Your task to perform on an android device: Is it going to rain this weekend? Image 0: 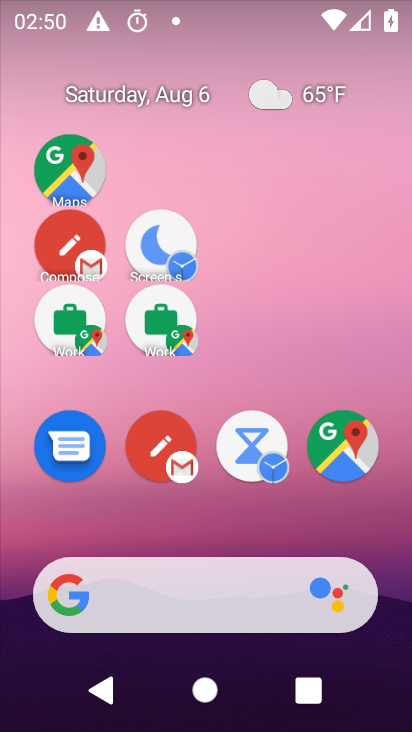
Step 0: drag from (256, 621) to (219, 294)
Your task to perform on an android device: Is it going to rain this weekend? Image 1: 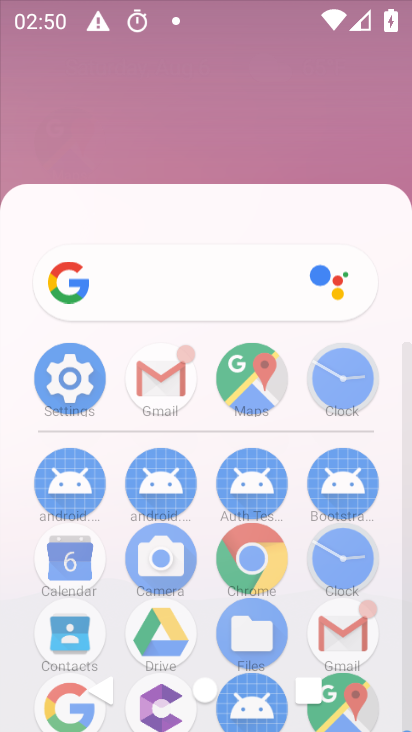
Step 1: drag from (221, 229) to (271, 288)
Your task to perform on an android device: Is it going to rain this weekend? Image 2: 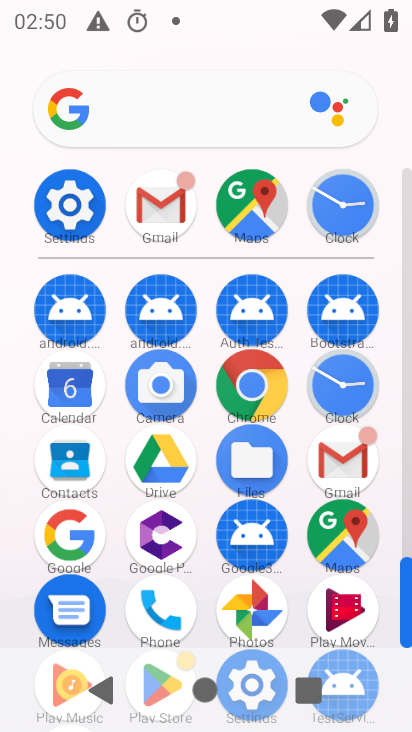
Step 2: click (267, 379)
Your task to perform on an android device: Is it going to rain this weekend? Image 3: 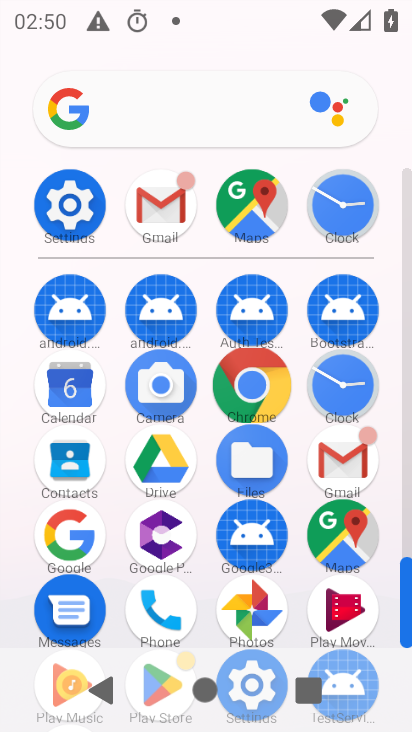
Step 3: click (260, 386)
Your task to perform on an android device: Is it going to rain this weekend? Image 4: 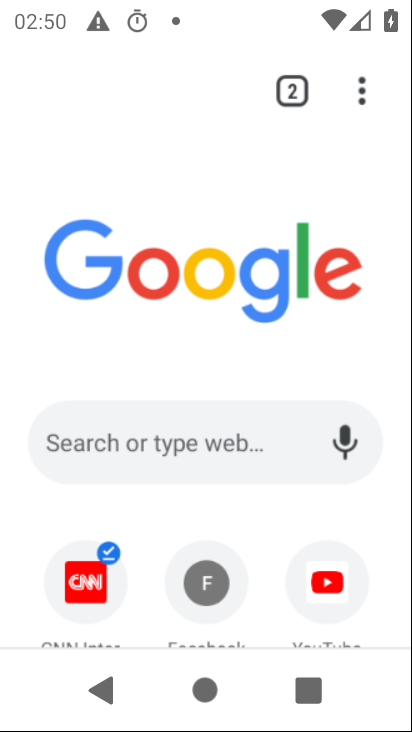
Step 4: click (260, 386)
Your task to perform on an android device: Is it going to rain this weekend? Image 5: 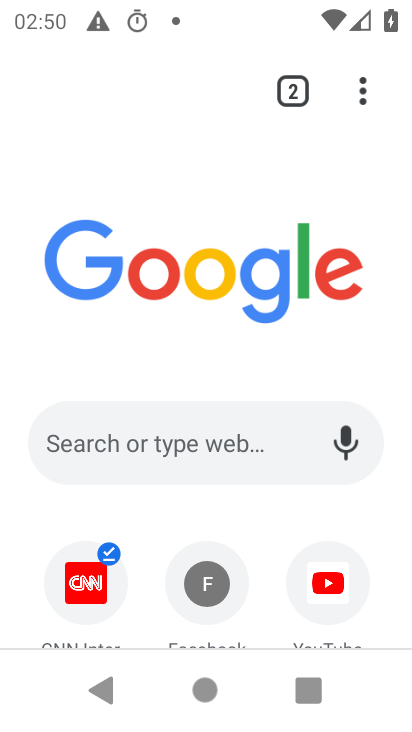
Step 5: click (78, 440)
Your task to perform on an android device: Is it going to rain this weekend? Image 6: 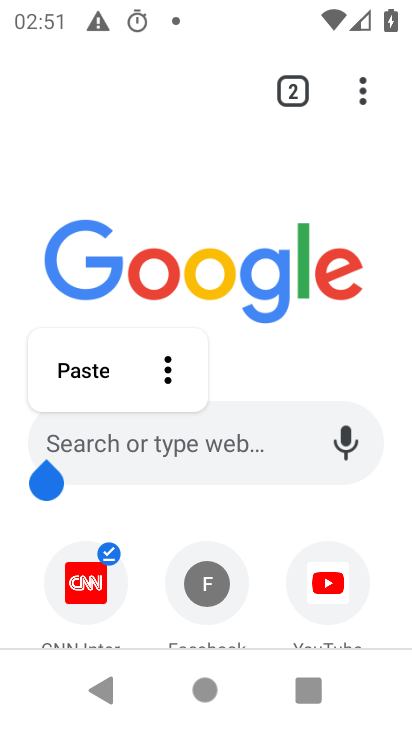
Step 6: type "is"
Your task to perform on an android device: Is it going to rain this weekend? Image 7: 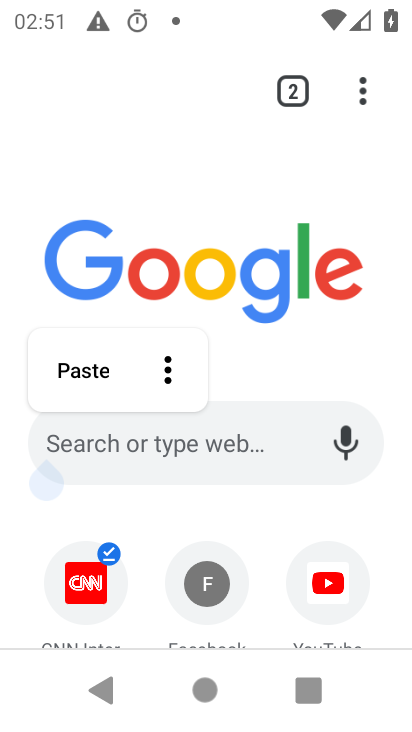
Step 7: click (61, 428)
Your task to perform on an android device: Is it going to rain this weekend? Image 8: 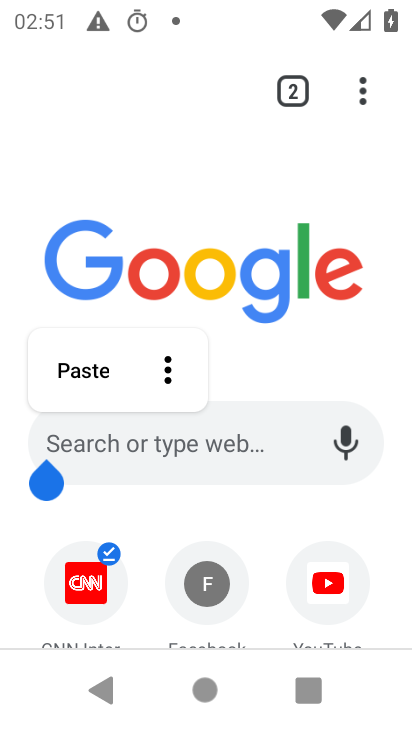
Step 8: click (76, 448)
Your task to perform on an android device: Is it going to rain this weekend? Image 9: 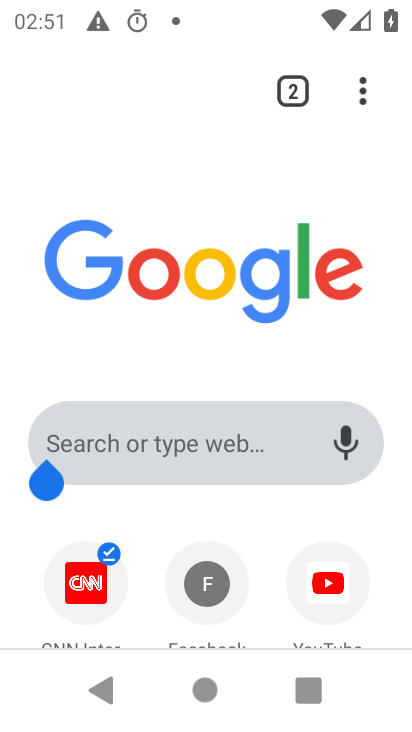
Step 9: click (84, 449)
Your task to perform on an android device: Is it going to rain this weekend? Image 10: 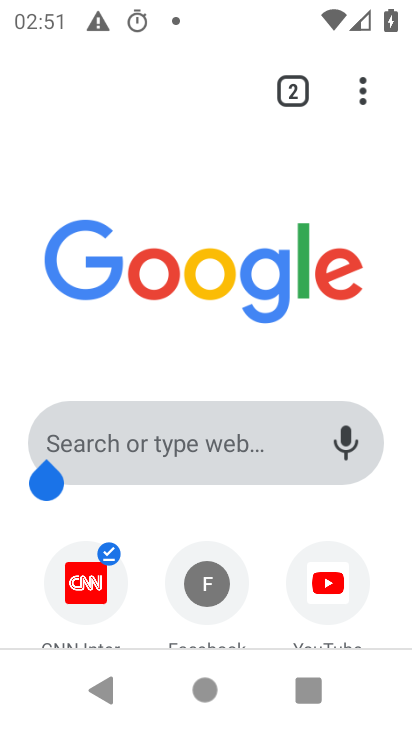
Step 10: click (77, 450)
Your task to perform on an android device: Is it going to rain this weekend? Image 11: 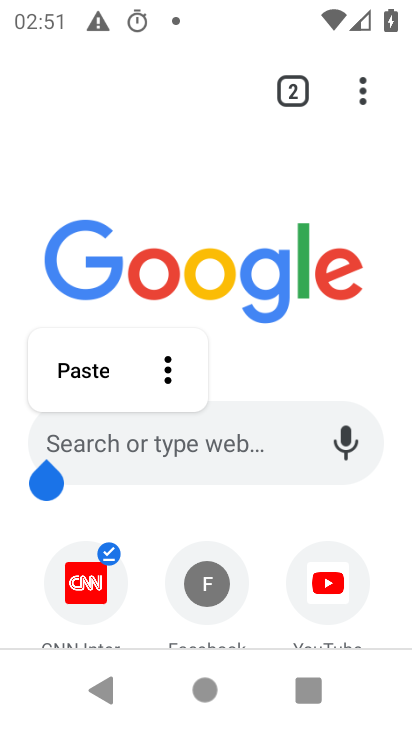
Step 11: click (64, 446)
Your task to perform on an android device: Is it going to rain this weekend? Image 12: 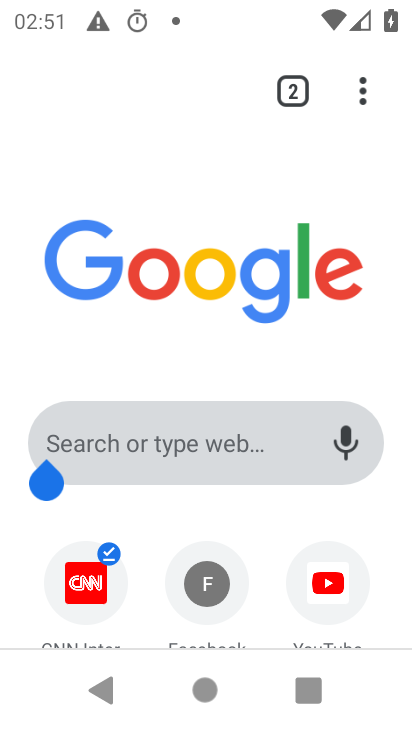
Step 12: click (48, 451)
Your task to perform on an android device: Is it going to rain this weekend? Image 13: 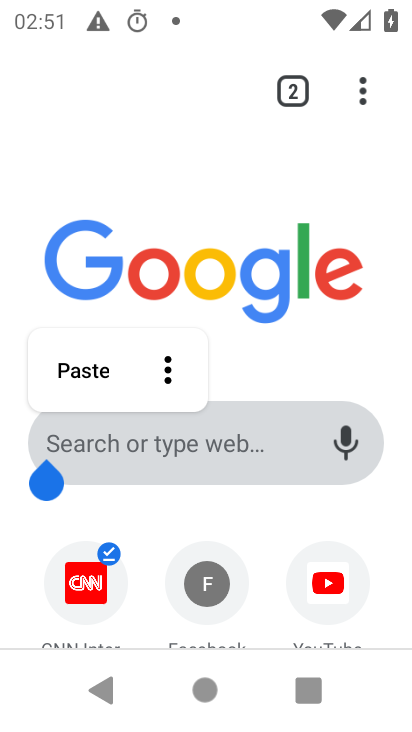
Step 13: click (48, 451)
Your task to perform on an android device: Is it going to rain this weekend? Image 14: 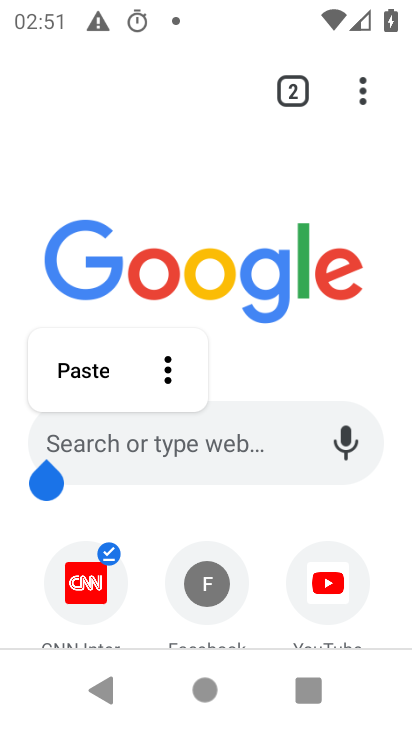
Step 14: click (56, 445)
Your task to perform on an android device: Is it going to rain this weekend? Image 15: 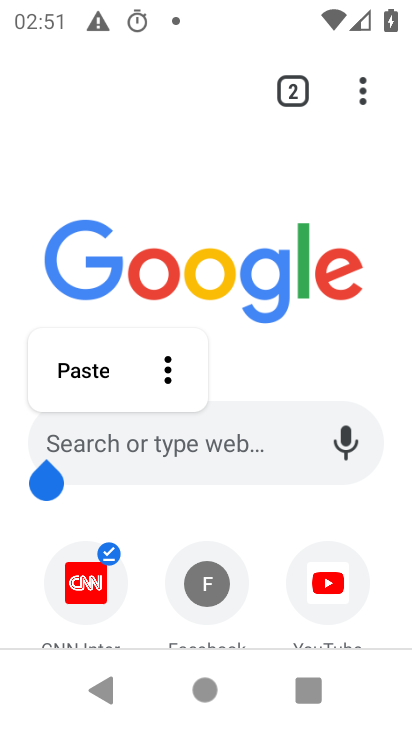
Step 15: click (56, 446)
Your task to perform on an android device: Is it going to rain this weekend? Image 16: 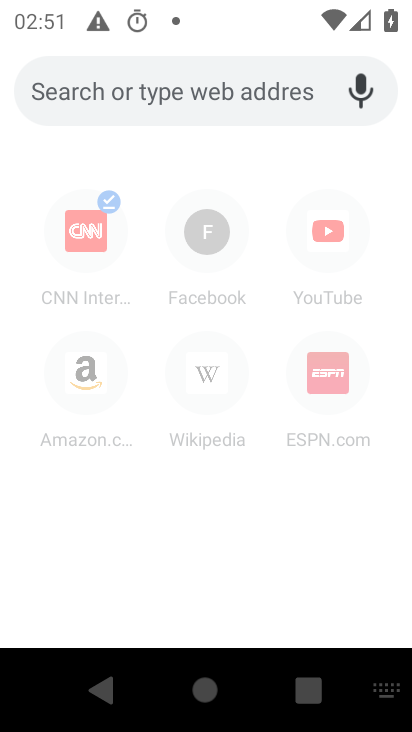
Step 16: type "is it going to rain this weekend"
Your task to perform on an android device: Is it going to rain this weekend? Image 17: 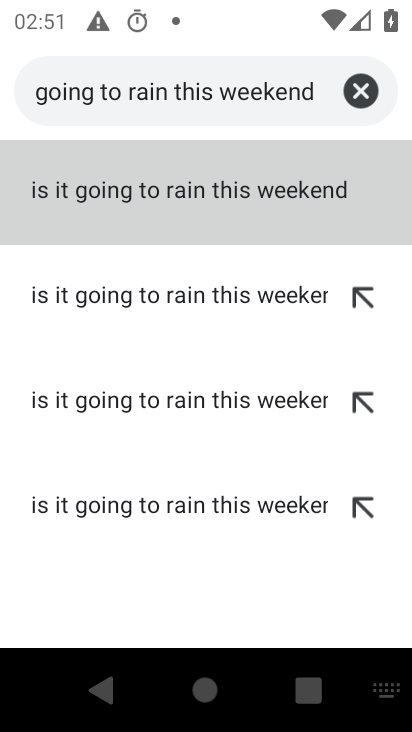
Step 17: click (297, 185)
Your task to perform on an android device: Is it going to rain this weekend? Image 18: 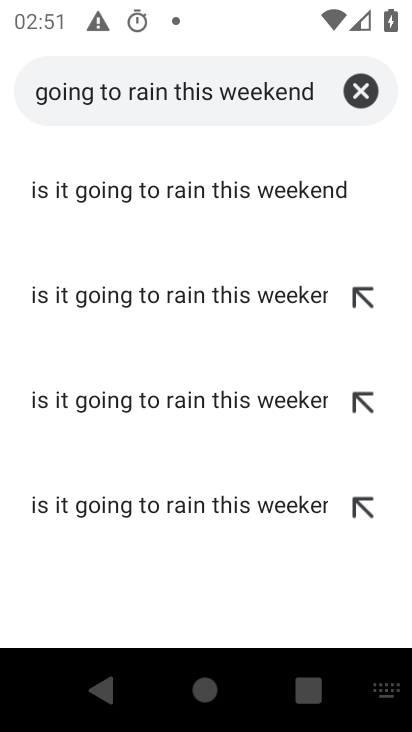
Step 18: click (297, 186)
Your task to perform on an android device: Is it going to rain this weekend? Image 19: 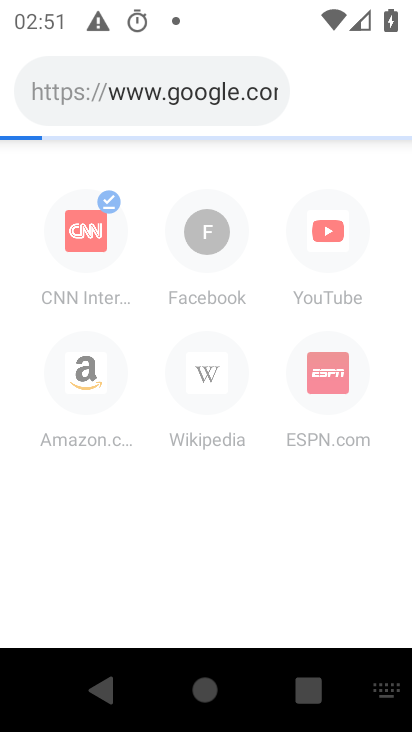
Step 19: click (297, 186)
Your task to perform on an android device: Is it going to rain this weekend? Image 20: 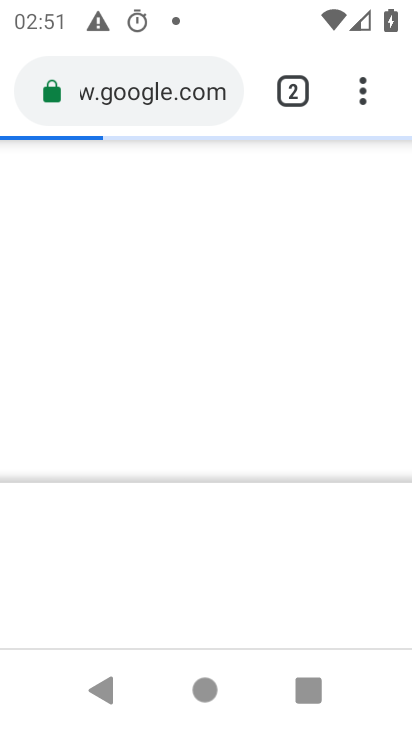
Step 20: click (297, 186)
Your task to perform on an android device: Is it going to rain this weekend? Image 21: 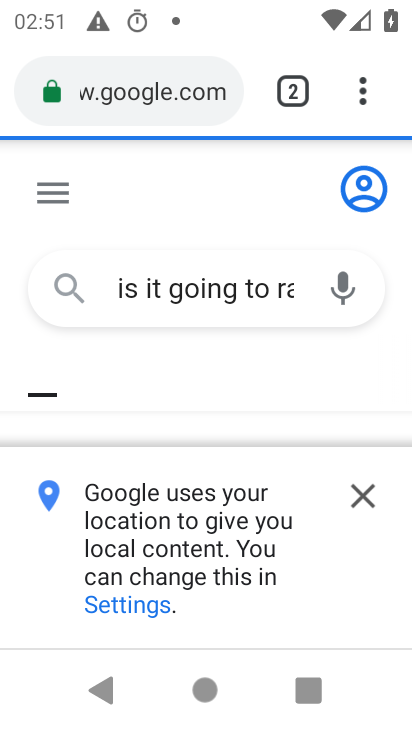
Step 21: task complete